Your task to perform on an android device: open app "Pinterest" (install if not already installed) Image 0: 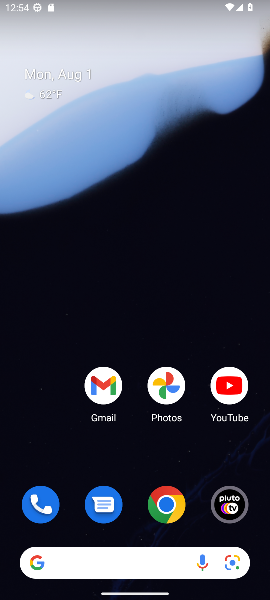
Step 0: drag from (99, 545) to (173, 1)
Your task to perform on an android device: open app "Pinterest" (install if not already installed) Image 1: 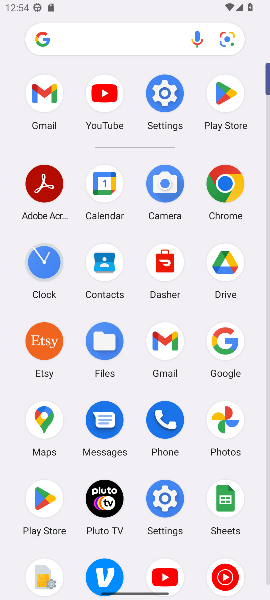
Step 1: click (226, 97)
Your task to perform on an android device: open app "Pinterest" (install if not already installed) Image 2: 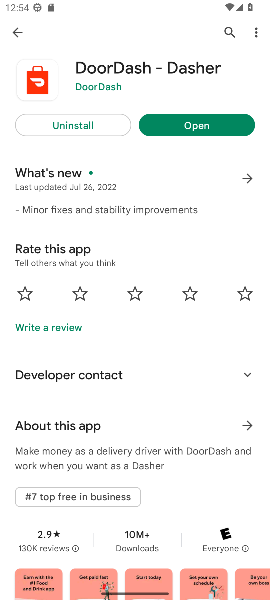
Step 2: click (226, 29)
Your task to perform on an android device: open app "Pinterest" (install if not already installed) Image 3: 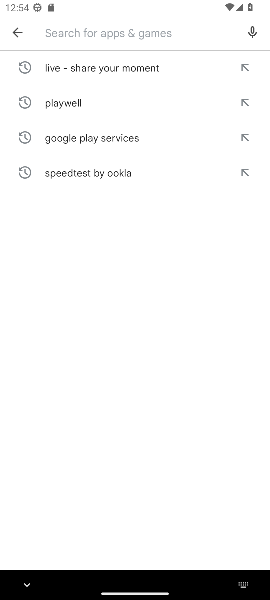
Step 3: type "pinterest"
Your task to perform on an android device: open app "Pinterest" (install if not already installed) Image 4: 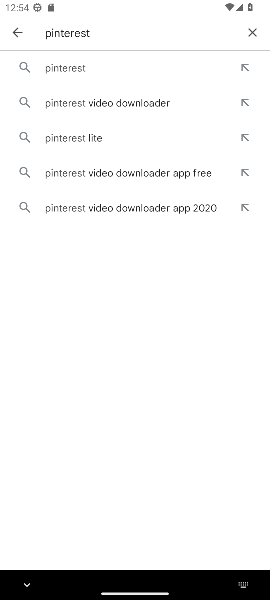
Step 4: click (60, 69)
Your task to perform on an android device: open app "Pinterest" (install if not already installed) Image 5: 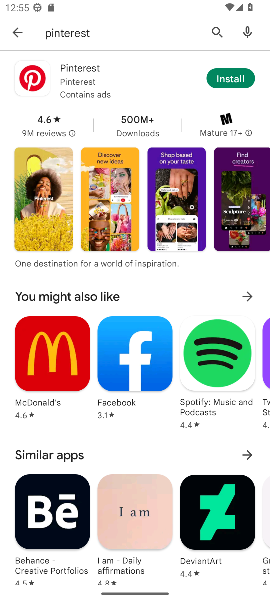
Step 5: click (232, 76)
Your task to perform on an android device: open app "Pinterest" (install if not already installed) Image 6: 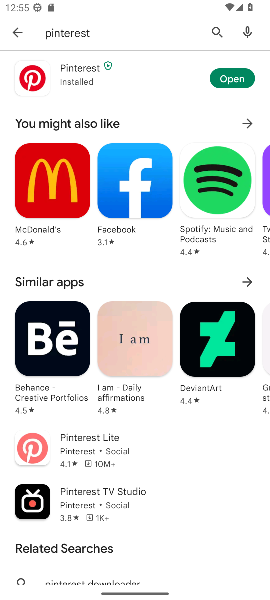
Step 6: click (239, 86)
Your task to perform on an android device: open app "Pinterest" (install if not already installed) Image 7: 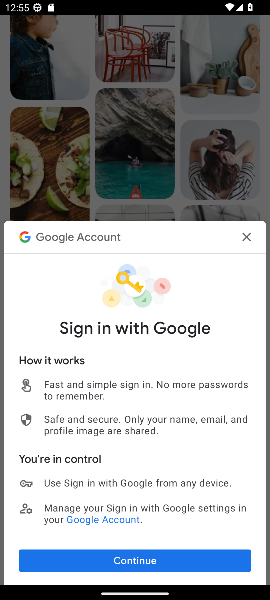
Step 7: click (242, 230)
Your task to perform on an android device: open app "Pinterest" (install if not already installed) Image 8: 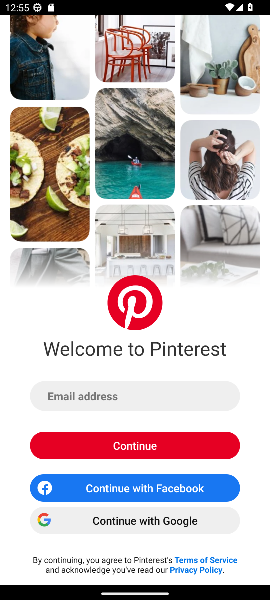
Step 8: task complete